Your task to perform on an android device: Open the gallery Image 0: 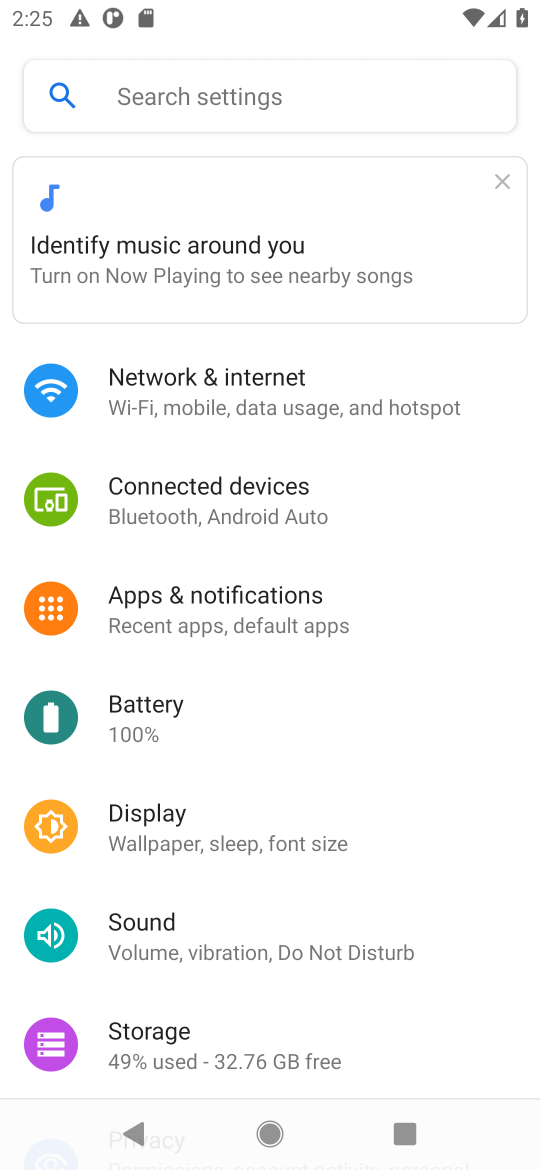
Step 0: press home button
Your task to perform on an android device: Open the gallery Image 1: 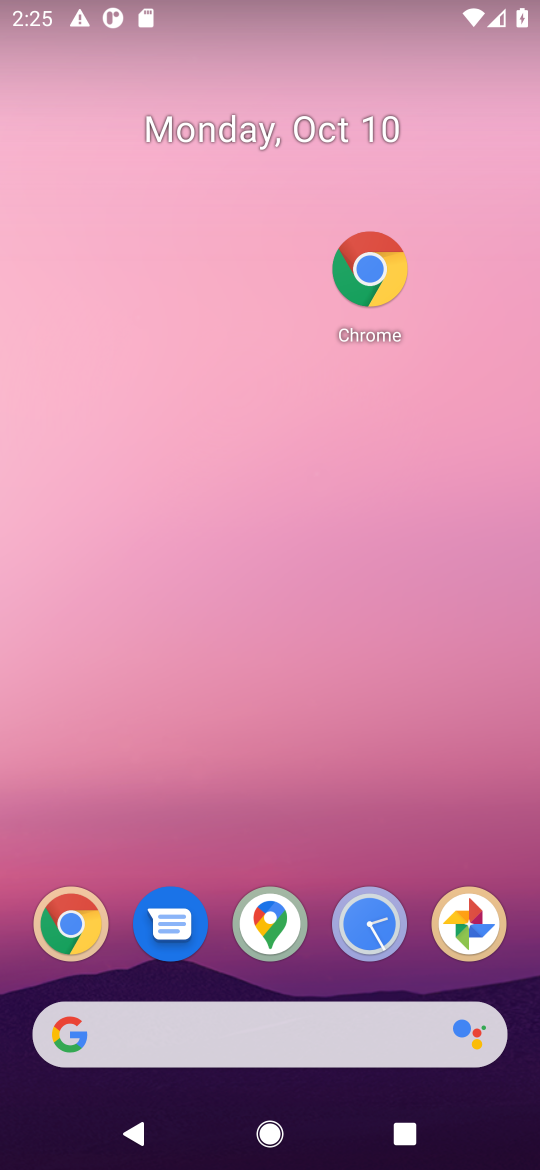
Step 1: task complete